Your task to perform on an android device: snooze an email in the gmail app Image 0: 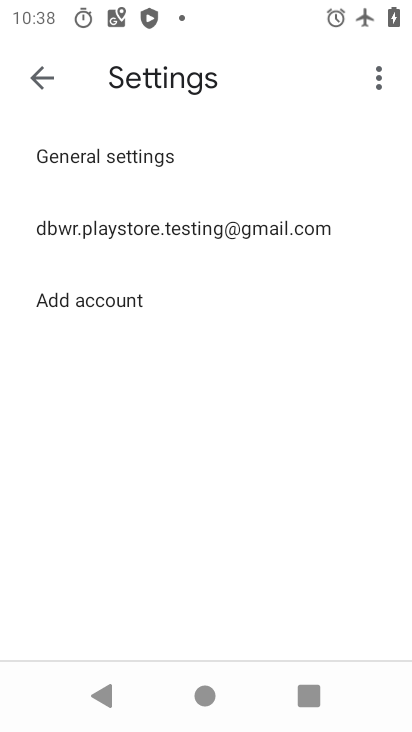
Step 0: press home button
Your task to perform on an android device: snooze an email in the gmail app Image 1: 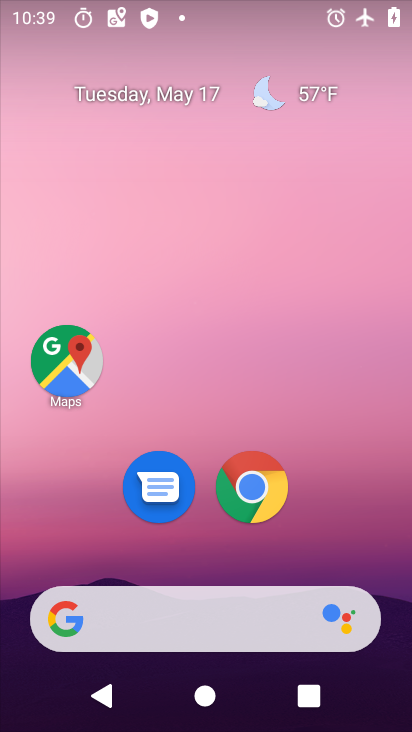
Step 1: drag from (217, 722) to (211, 109)
Your task to perform on an android device: snooze an email in the gmail app Image 2: 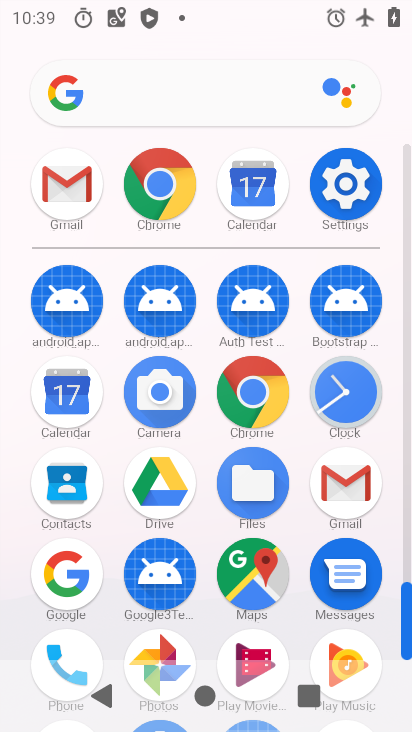
Step 2: click (330, 484)
Your task to perform on an android device: snooze an email in the gmail app Image 3: 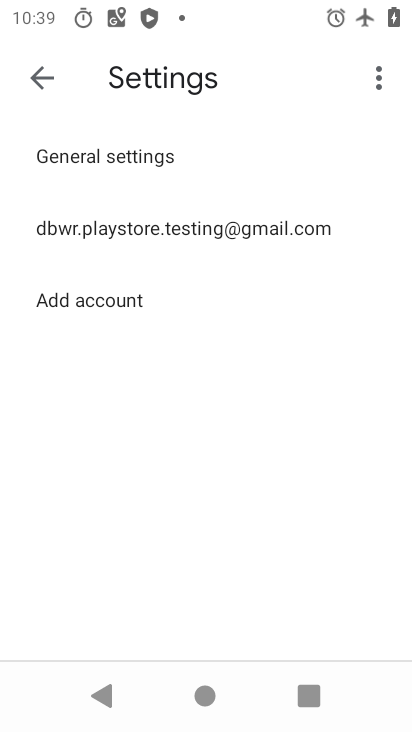
Step 3: click (27, 67)
Your task to perform on an android device: snooze an email in the gmail app Image 4: 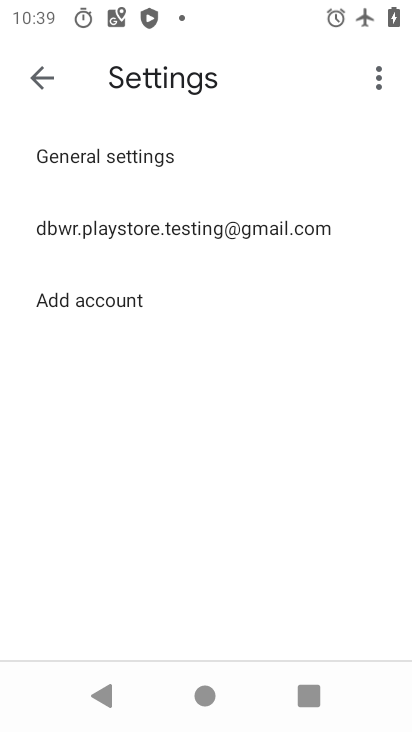
Step 4: click (36, 79)
Your task to perform on an android device: snooze an email in the gmail app Image 5: 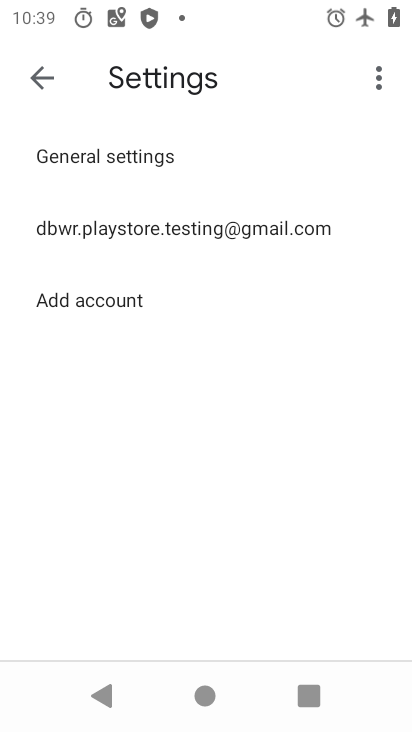
Step 5: click (40, 73)
Your task to perform on an android device: snooze an email in the gmail app Image 6: 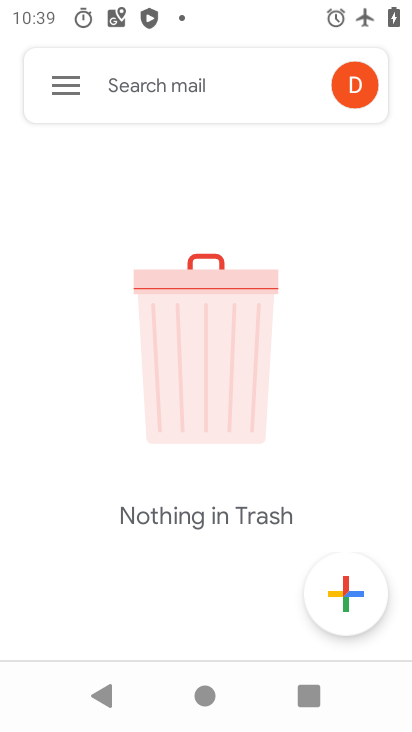
Step 6: click (72, 81)
Your task to perform on an android device: snooze an email in the gmail app Image 7: 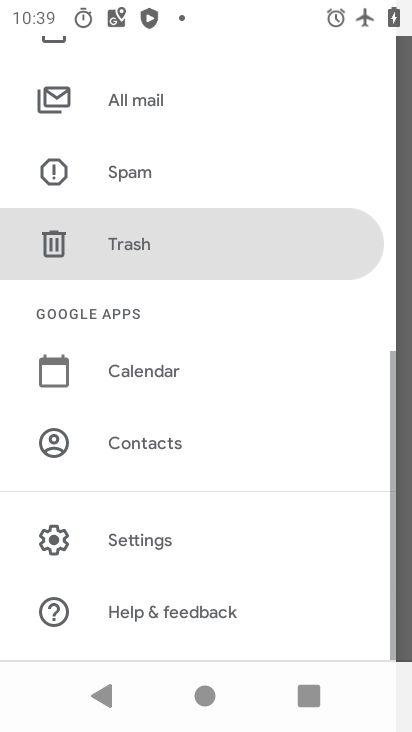
Step 7: drag from (147, 116) to (192, 503)
Your task to perform on an android device: snooze an email in the gmail app Image 8: 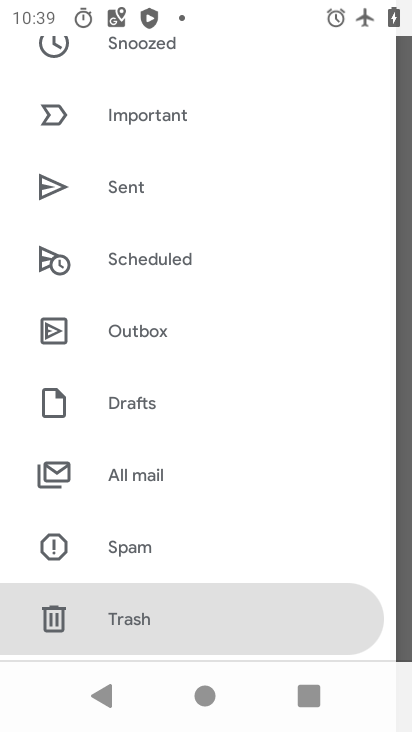
Step 8: drag from (159, 98) to (185, 497)
Your task to perform on an android device: snooze an email in the gmail app Image 9: 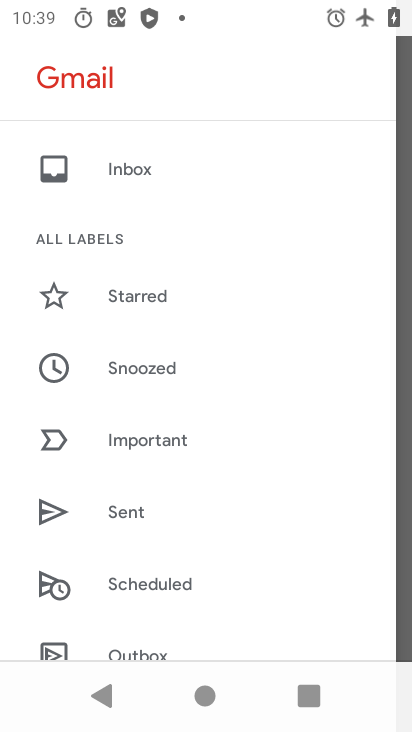
Step 9: click (121, 167)
Your task to perform on an android device: snooze an email in the gmail app Image 10: 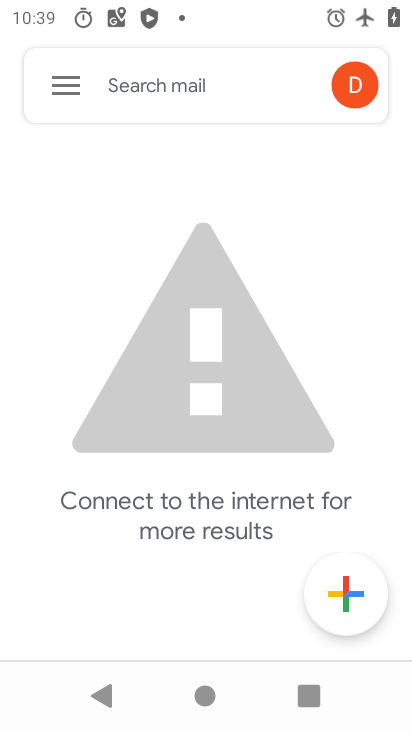
Step 10: task complete